Your task to perform on an android device: Search for sushi restaurants on Maps Image 0: 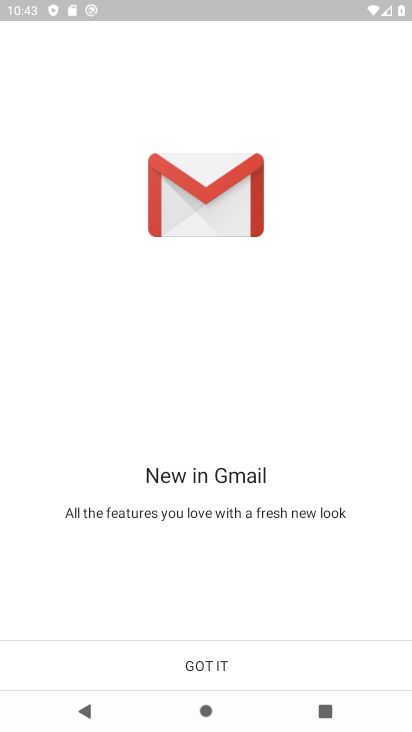
Step 0: press home button
Your task to perform on an android device: Search for sushi restaurants on Maps Image 1: 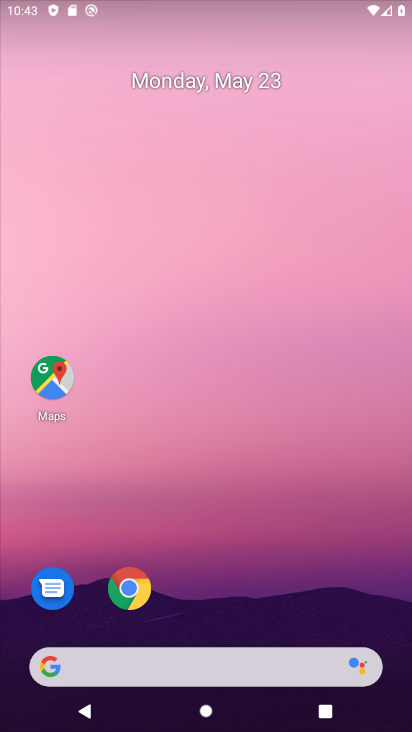
Step 1: drag from (408, 615) to (288, 144)
Your task to perform on an android device: Search for sushi restaurants on Maps Image 2: 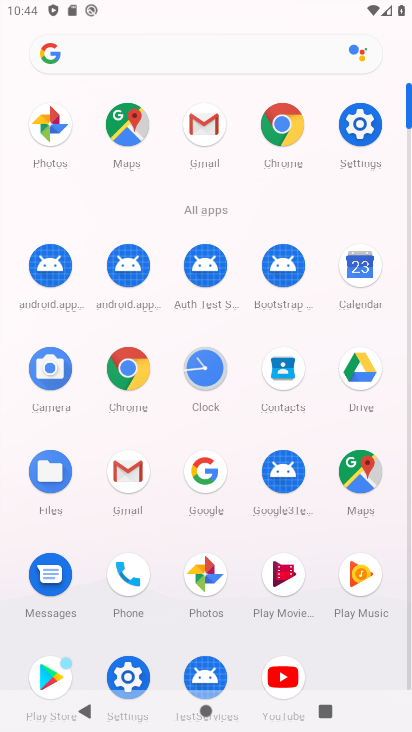
Step 2: click (373, 491)
Your task to perform on an android device: Search for sushi restaurants on Maps Image 3: 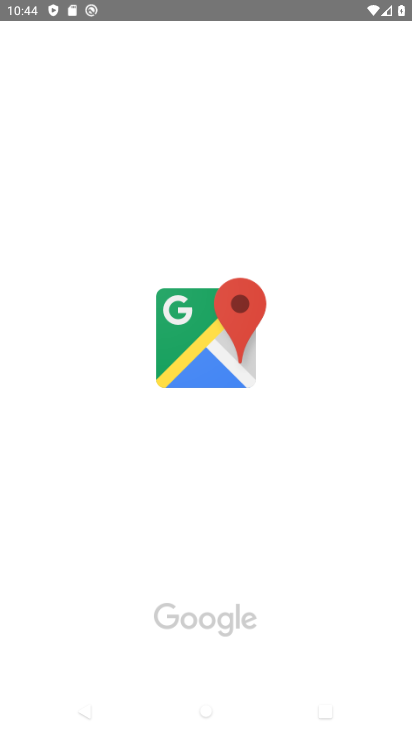
Step 3: task complete